Your task to perform on an android device: When is my next meeting? Image 0: 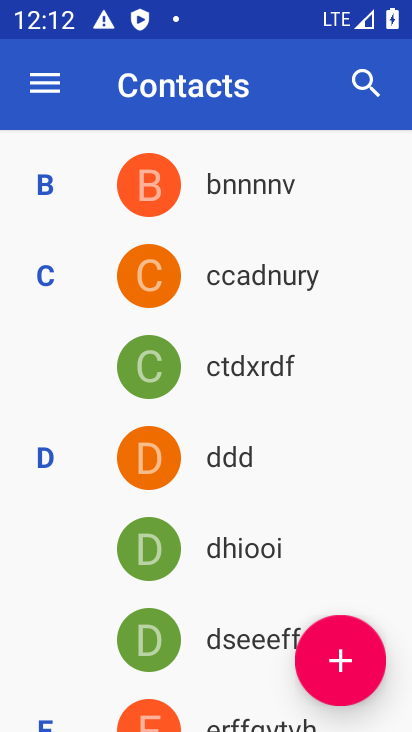
Step 0: press home button
Your task to perform on an android device: When is my next meeting? Image 1: 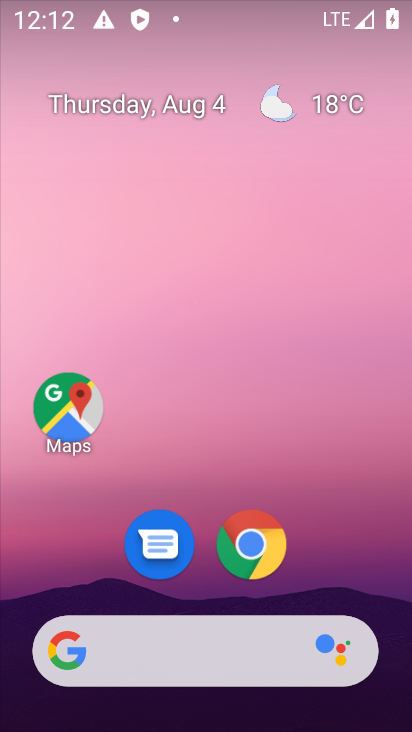
Step 1: drag from (362, 674) to (344, 112)
Your task to perform on an android device: When is my next meeting? Image 2: 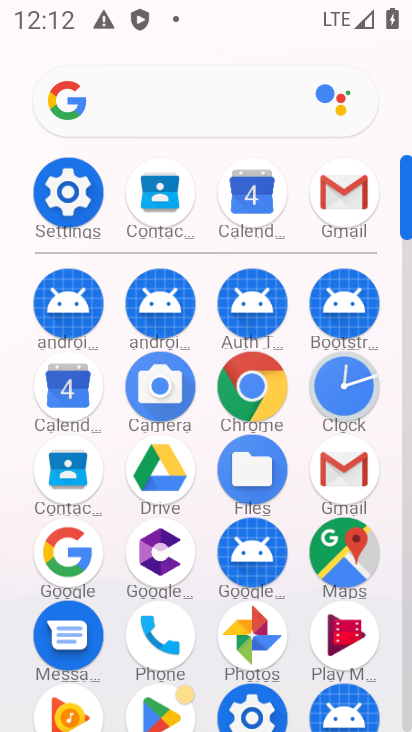
Step 2: click (52, 393)
Your task to perform on an android device: When is my next meeting? Image 3: 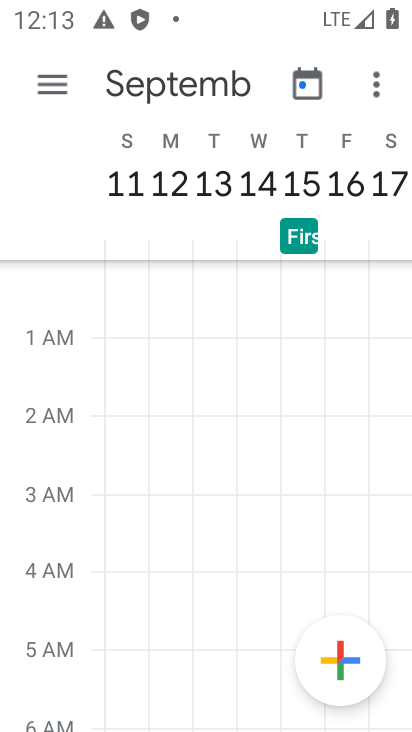
Step 3: click (50, 85)
Your task to perform on an android device: When is my next meeting? Image 4: 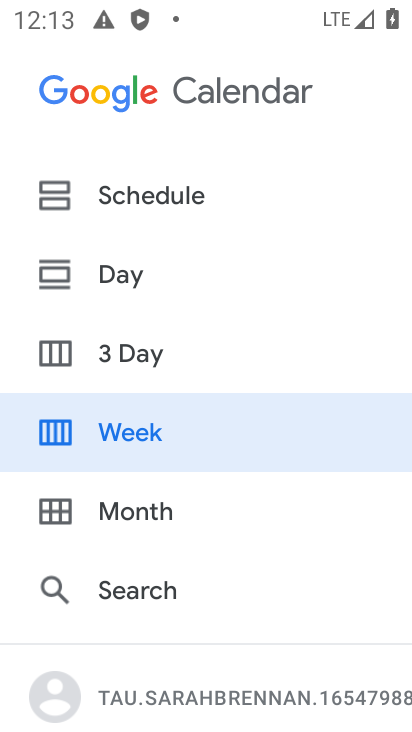
Step 4: drag from (208, 562) to (204, 260)
Your task to perform on an android device: When is my next meeting? Image 5: 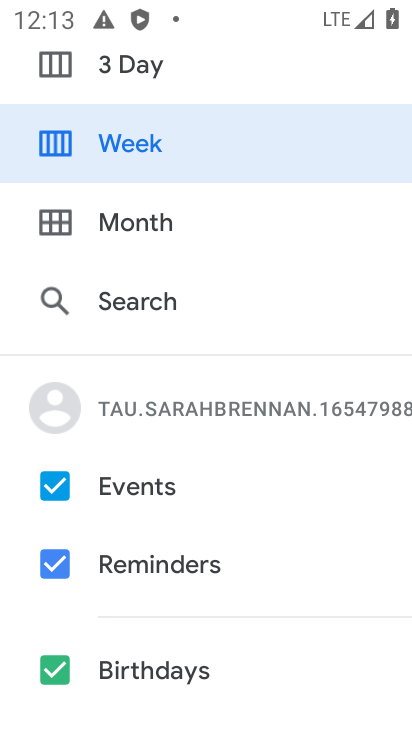
Step 5: drag from (214, 611) to (226, 408)
Your task to perform on an android device: When is my next meeting? Image 6: 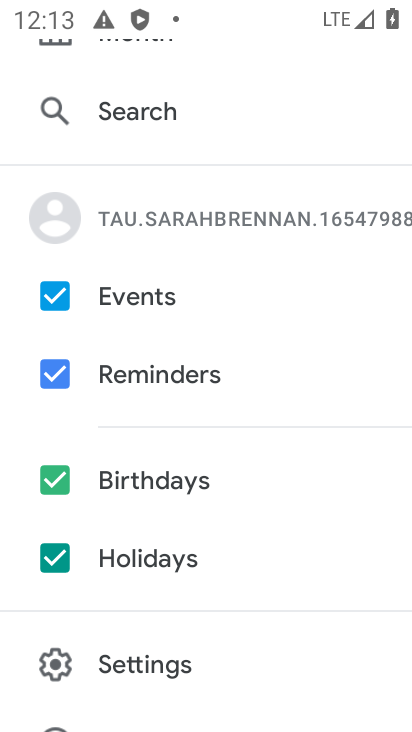
Step 6: click (48, 554)
Your task to perform on an android device: When is my next meeting? Image 7: 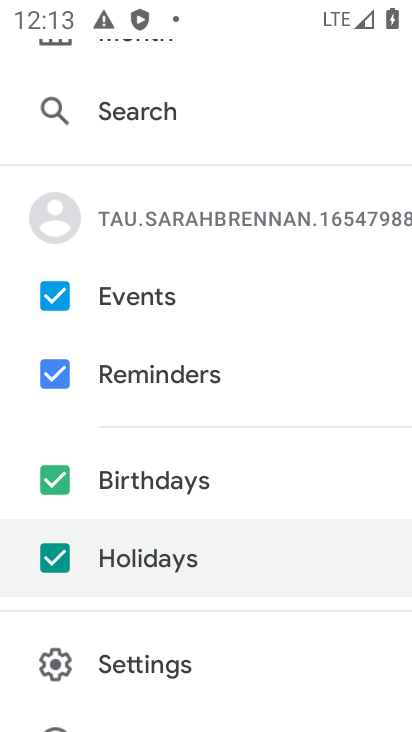
Step 7: click (47, 483)
Your task to perform on an android device: When is my next meeting? Image 8: 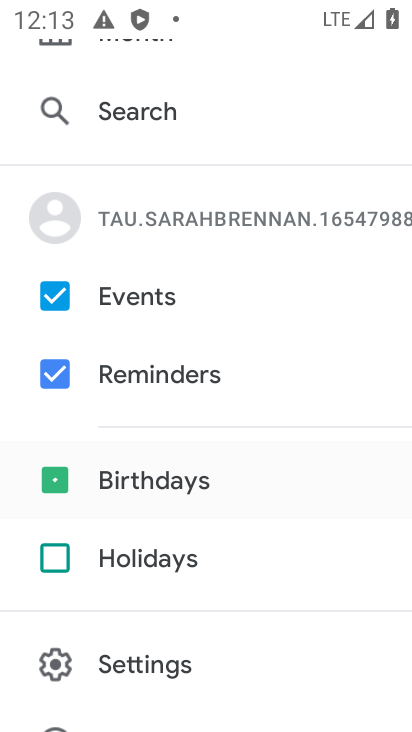
Step 8: click (51, 378)
Your task to perform on an android device: When is my next meeting? Image 9: 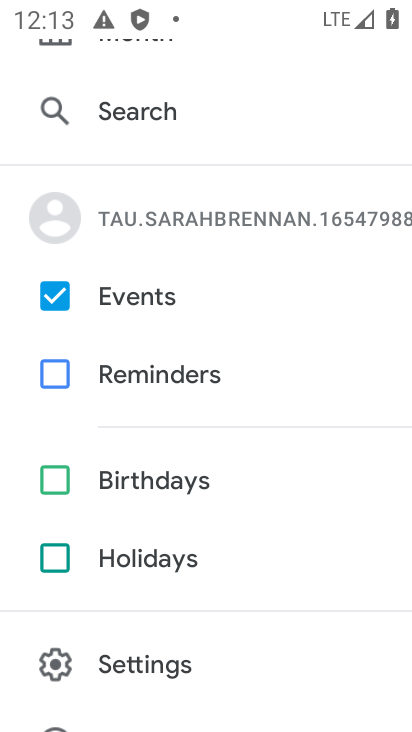
Step 9: drag from (227, 143) to (222, 570)
Your task to perform on an android device: When is my next meeting? Image 10: 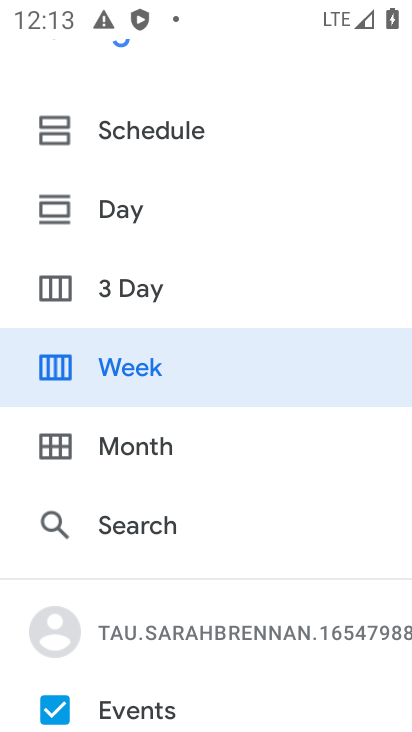
Step 10: click (128, 128)
Your task to perform on an android device: When is my next meeting? Image 11: 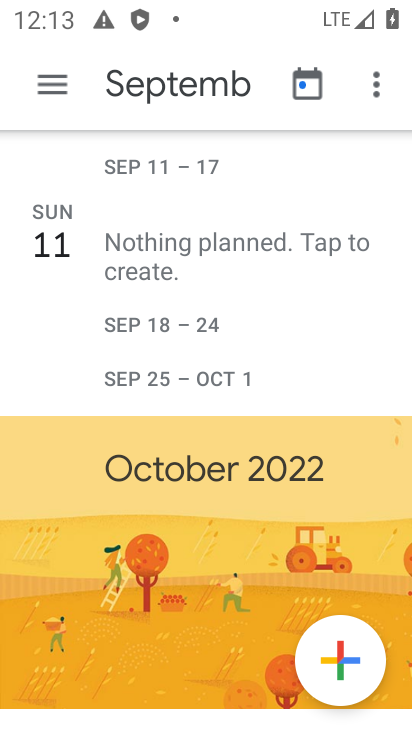
Step 11: drag from (242, 573) to (231, 190)
Your task to perform on an android device: When is my next meeting? Image 12: 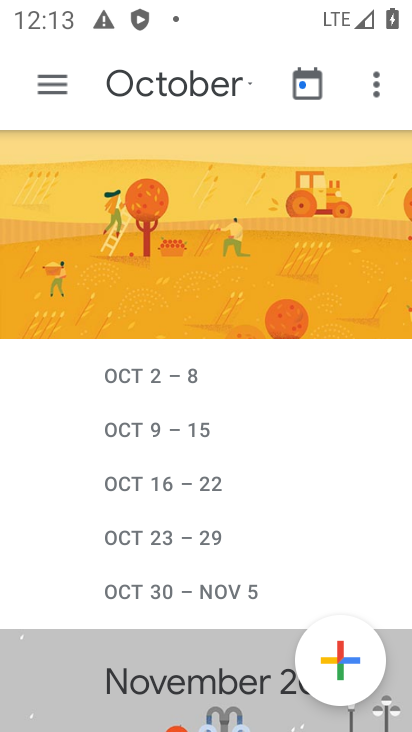
Step 12: drag from (190, 606) to (204, 227)
Your task to perform on an android device: When is my next meeting? Image 13: 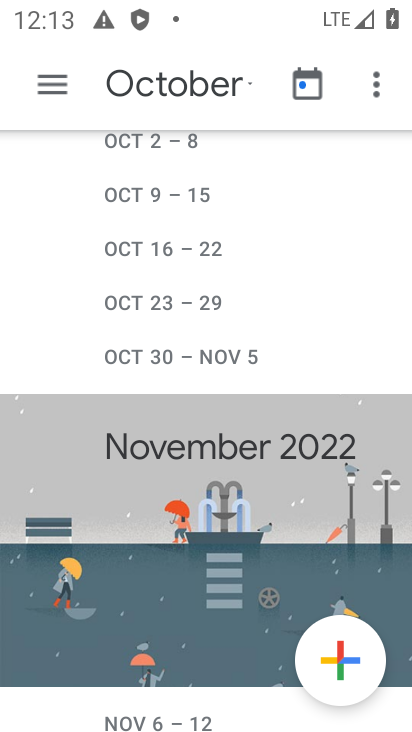
Step 13: drag from (185, 290) to (148, 610)
Your task to perform on an android device: When is my next meeting? Image 14: 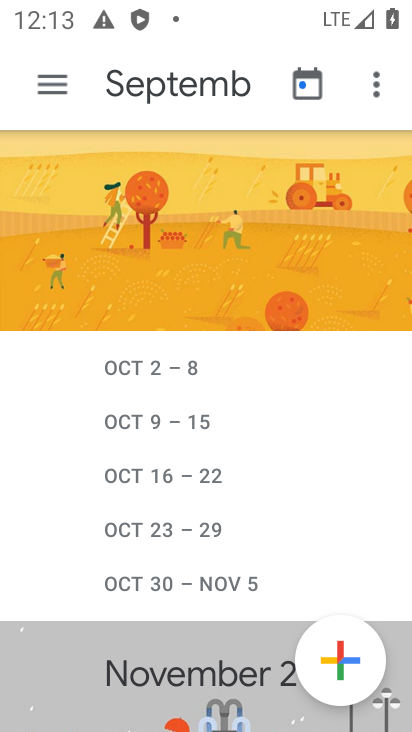
Step 14: drag from (191, 155) to (160, 628)
Your task to perform on an android device: When is my next meeting? Image 15: 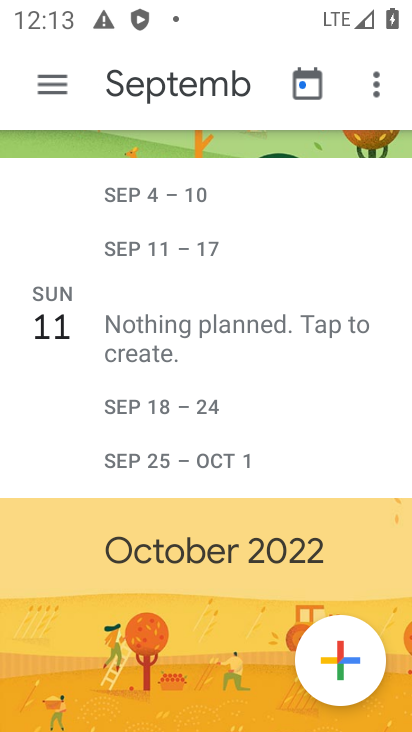
Step 15: drag from (186, 269) to (173, 611)
Your task to perform on an android device: When is my next meeting? Image 16: 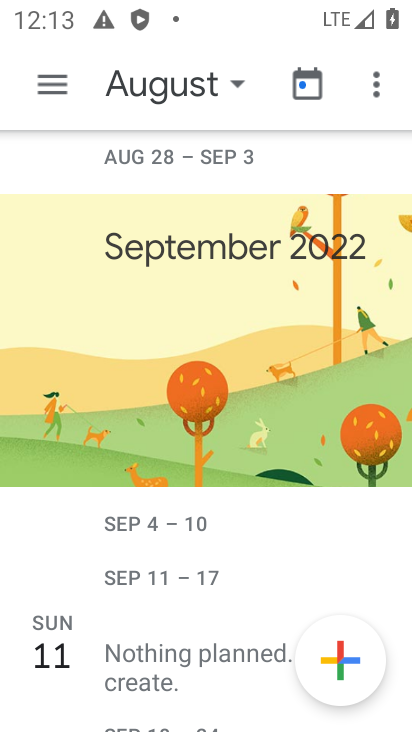
Step 16: click (231, 80)
Your task to perform on an android device: When is my next meeting? Image 17: 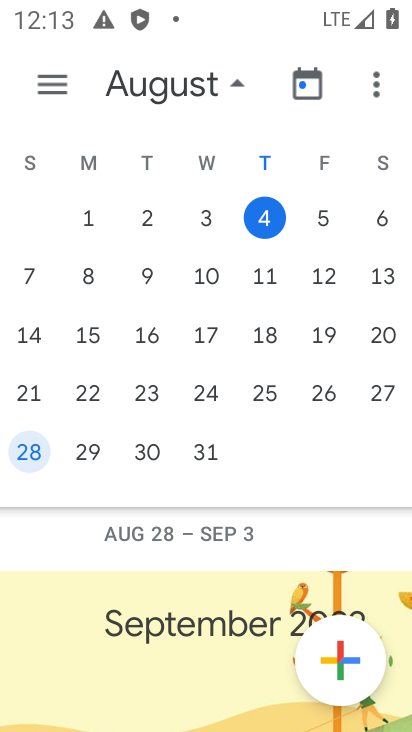
Step 17: drag from (51, 241) to (400, 282)
Your task to perform on an android device: When is my next meeting? Image 18: 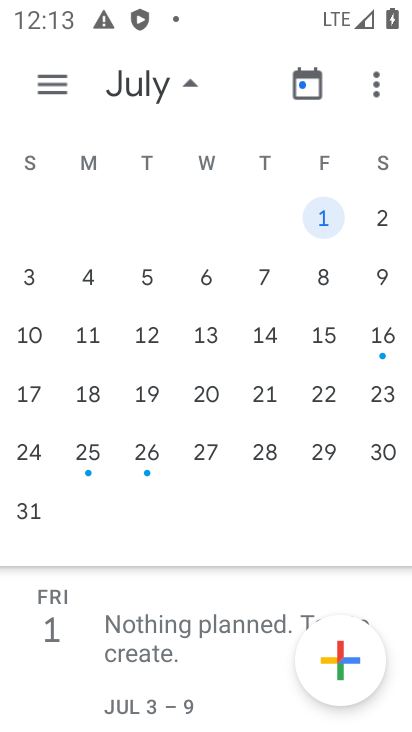
Step 18: drag from (391, 295) to (71, 296)
Your task to perform on an android device: When is my next meeting? Image 19: 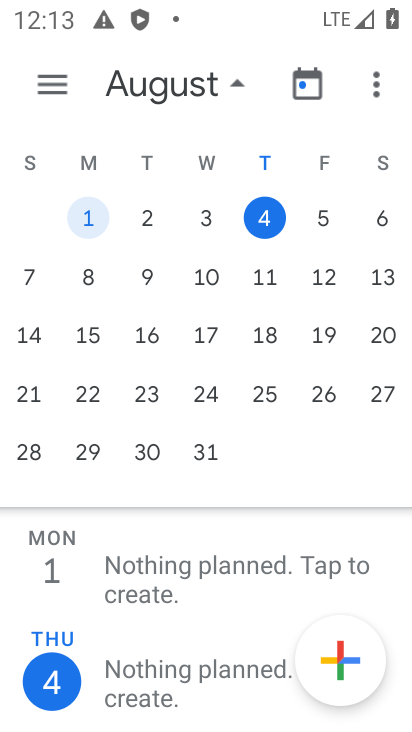
Step 19: click (42, 84)
Your task to perform on an android device: When is my next meeting? Image 20: 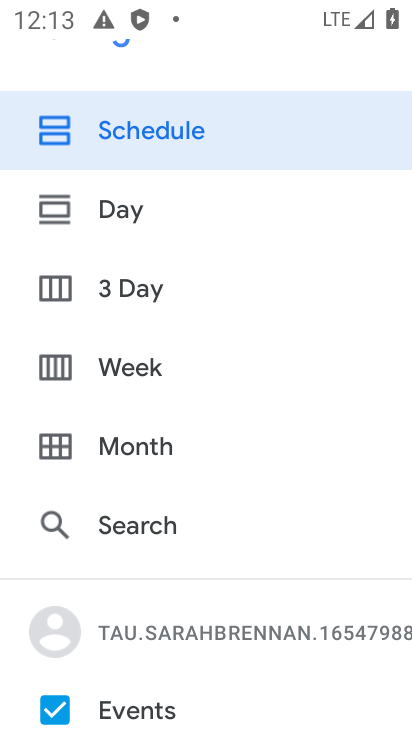
Step 20: click (111, 130)
Your task to perform on an android device: When is my next meeting? Image 21: 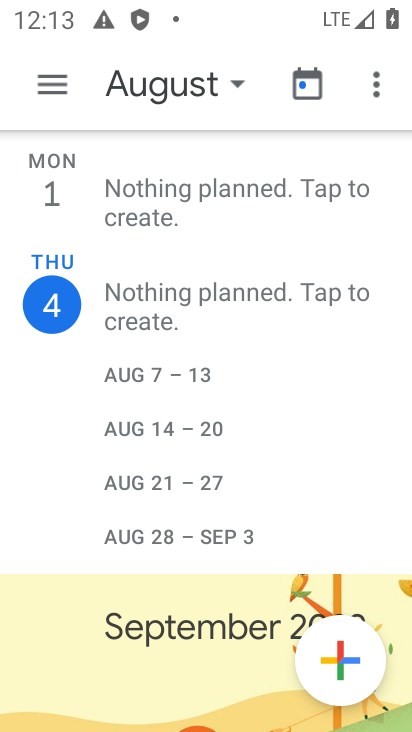
Step 21: task complete